Your task to perform on an android device: turn on bluetooth scan Image 0: 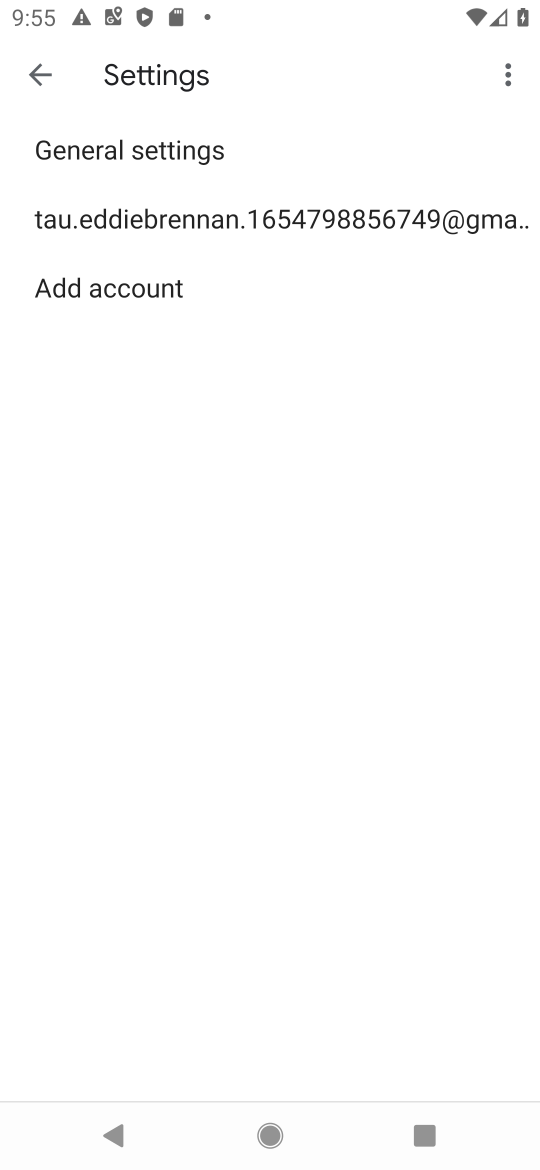
Step 0: press home button
Your task to perform on an android device: turn on bluetooth scan Image 1: 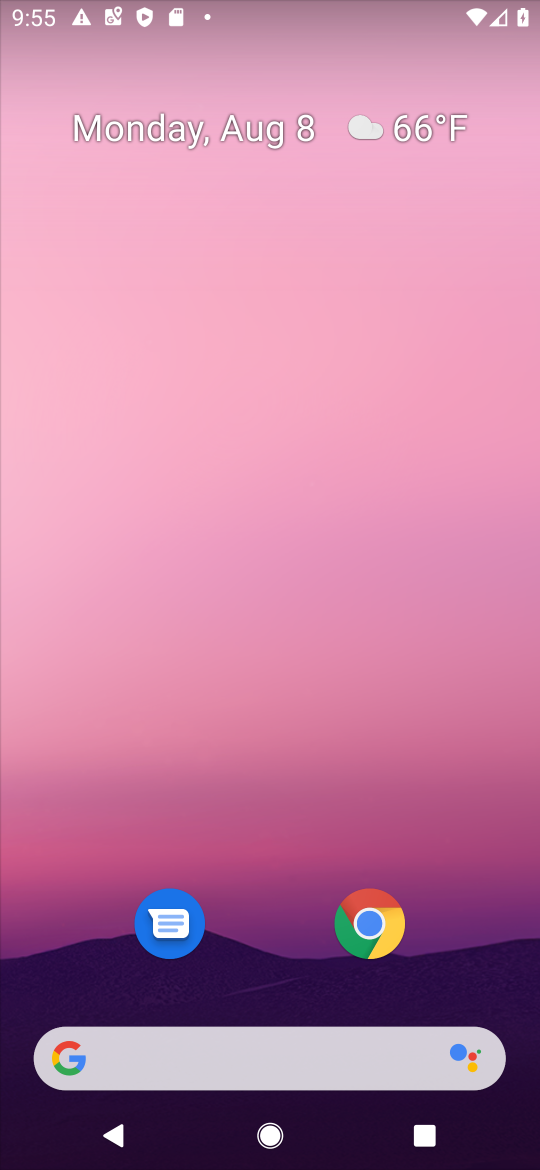
Step 1: drag from (66, 1108) to (232, 356)
Your task to perform on an android device: turn on bluetooth scan Image 2: 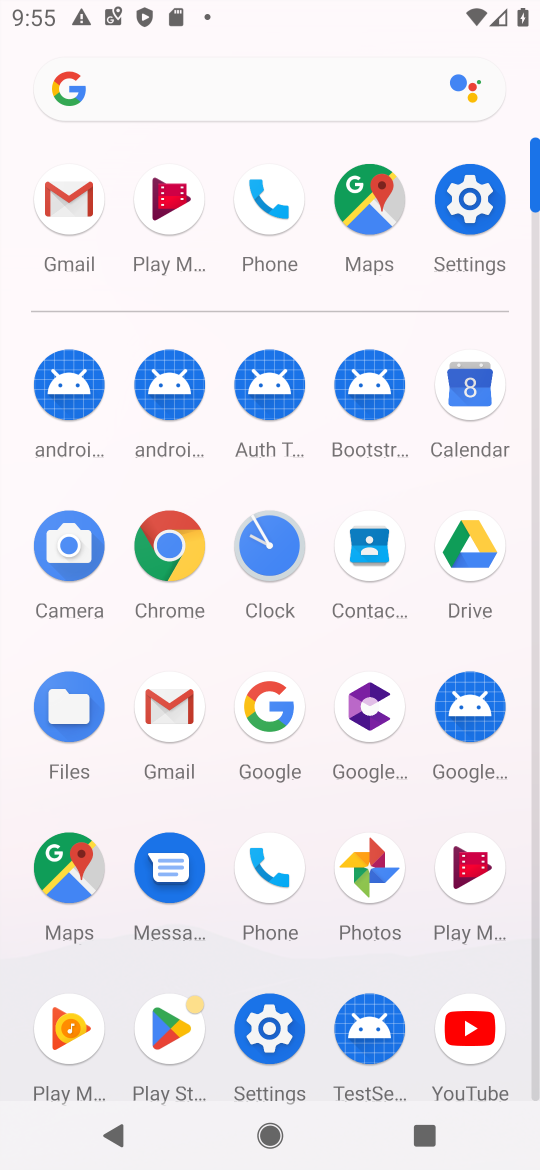
Step 2: click (272, 1023)
Your task to perform on an android device: turn on bluetooth scan Image 3: 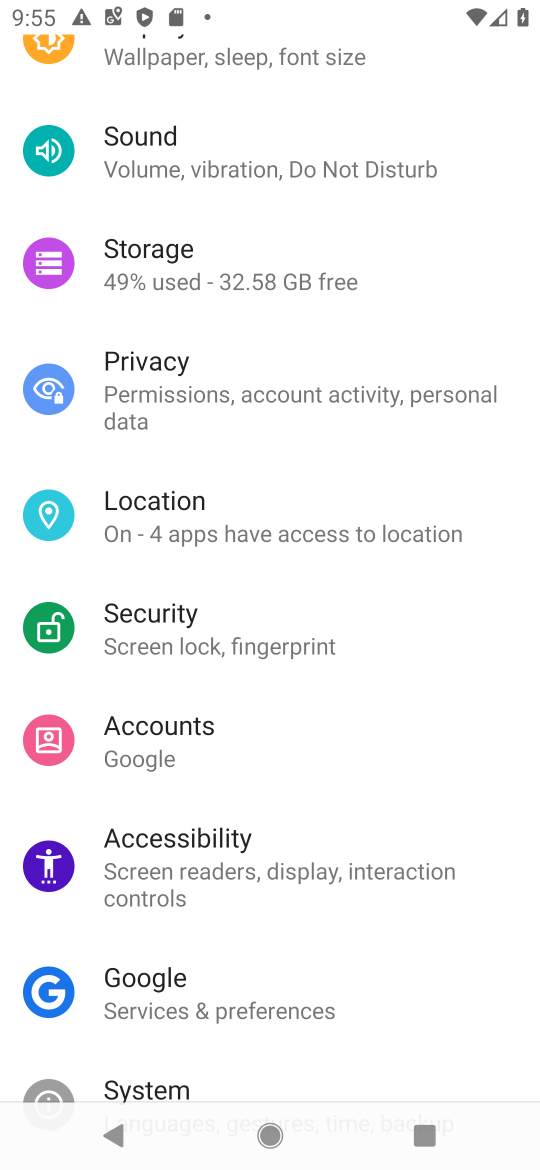
Step 3: drag from (406, 72) to (392, 724)
Your task to perform on an android device: turn on bluetooth scan Image 4: 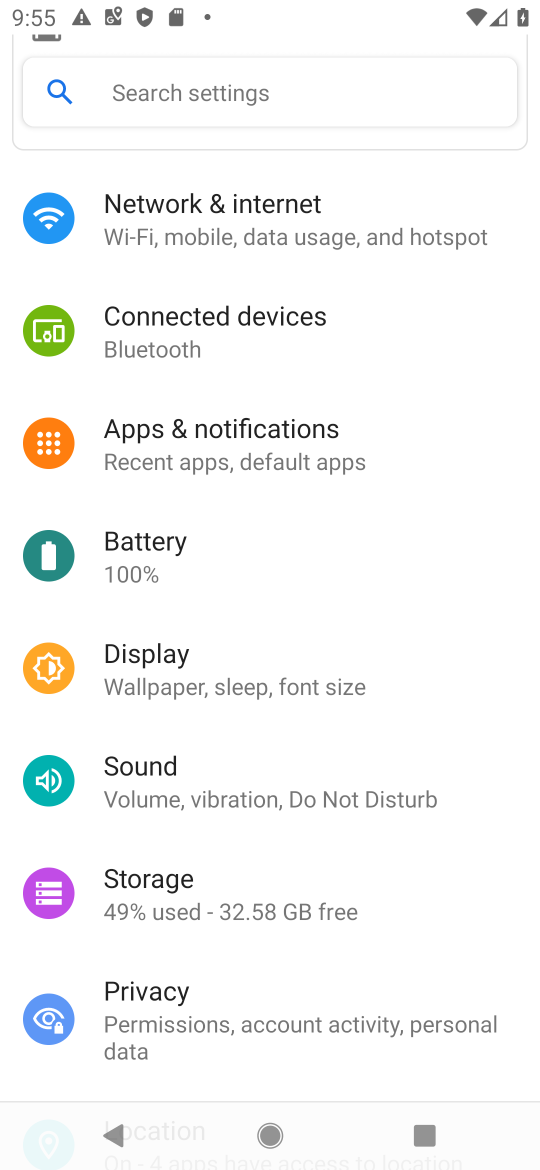
Step 4: click (196, 345)
Your task to perform on an android device: turn on bluetooth scan Image 5: 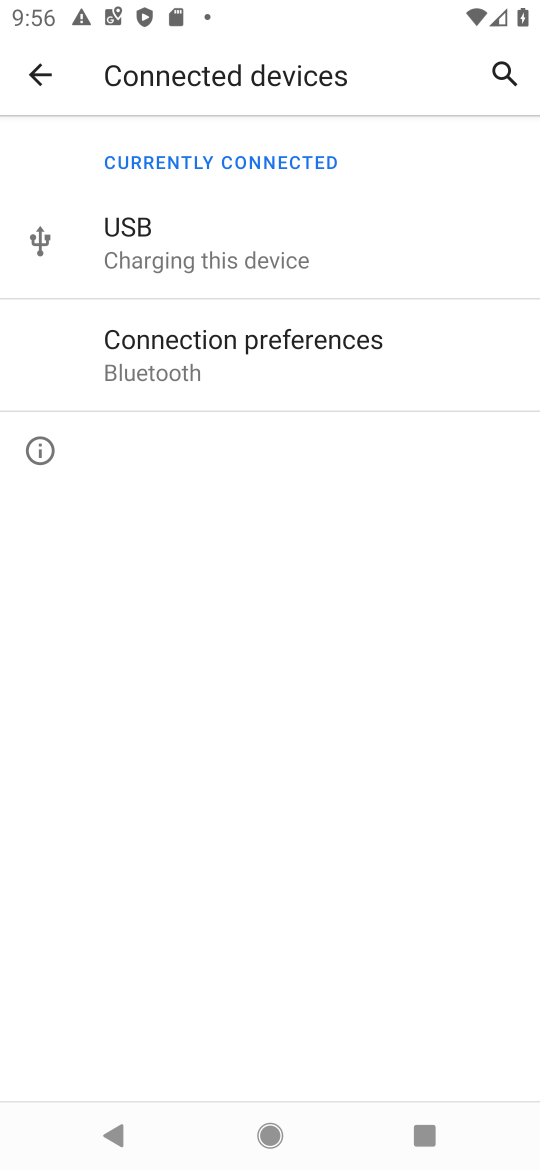
Step 5: click (196, 345)
Your task to perform on an android device: turn on bluetooth scan Image 6: 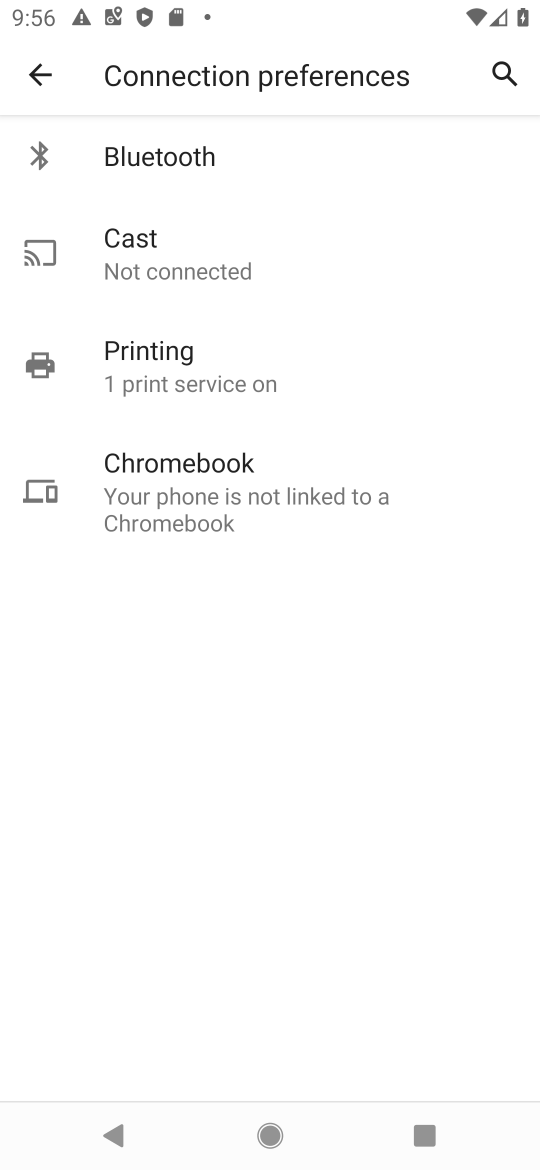
Step 6: click (187, 180)
Your task to perform on an android device: turn on bluetooth scan Image 7: 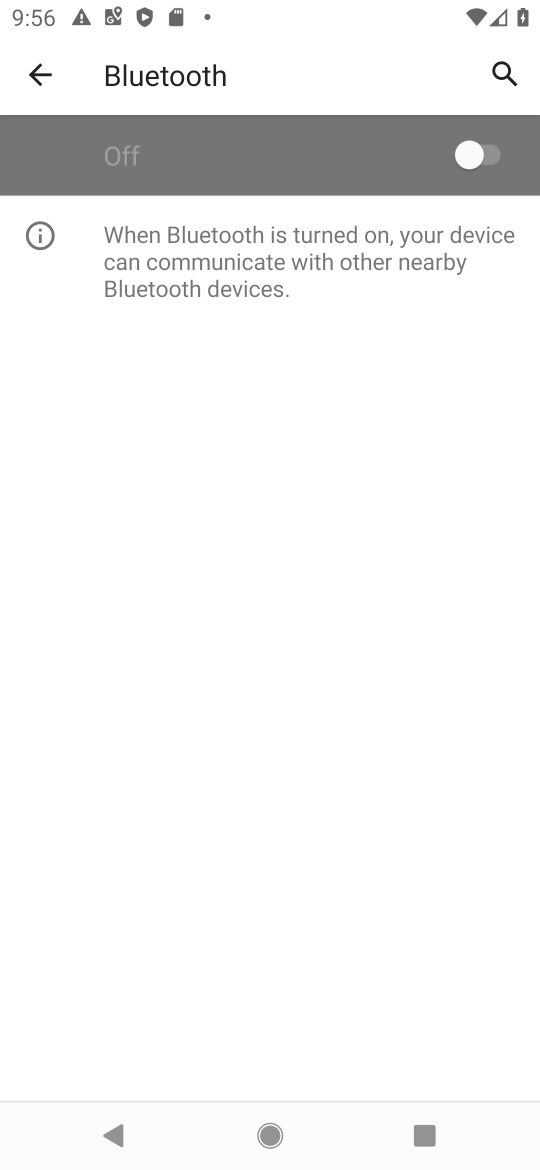
Step 7: click (455, 171)
Your task to perform on an android device: turn on bluetooth scan Image 8: 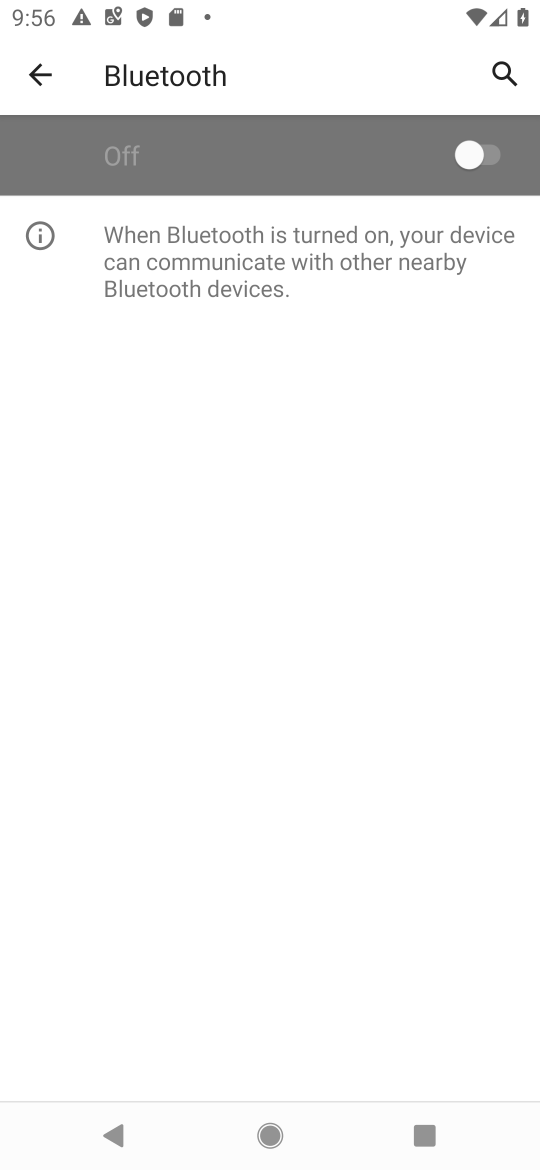
Step 8: task complete